Your task to perform on an android device: Go to Yahoo.com Image 0: 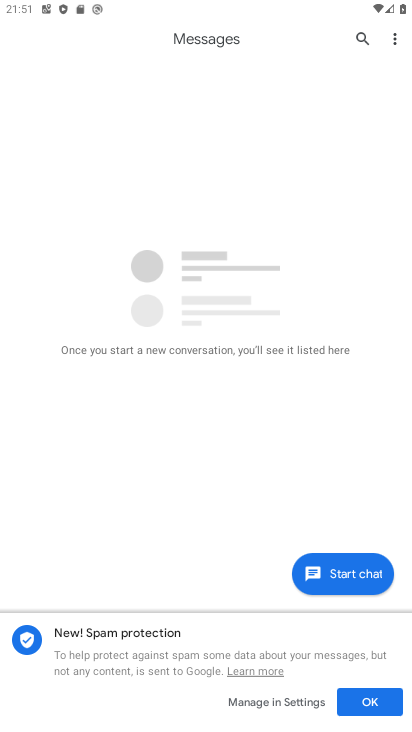
Step 0: press home button
Your task to perform on an android device: Go to Yahoo.com Image 1: 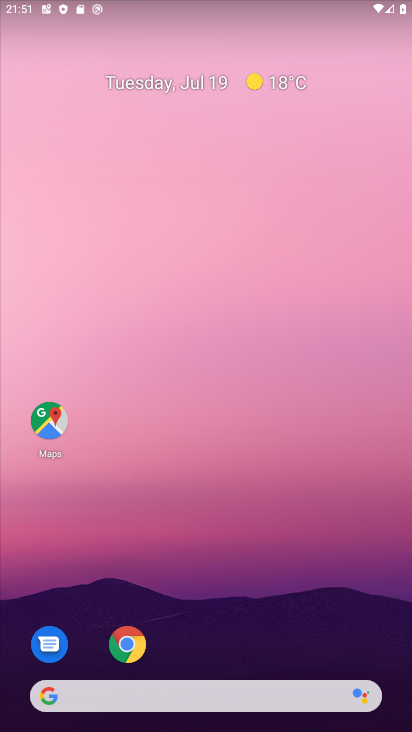
Step 1: drag from (291, 730) to (221, 186)
Your task to perform on an android device: Go to Yahoo.com Image 2: 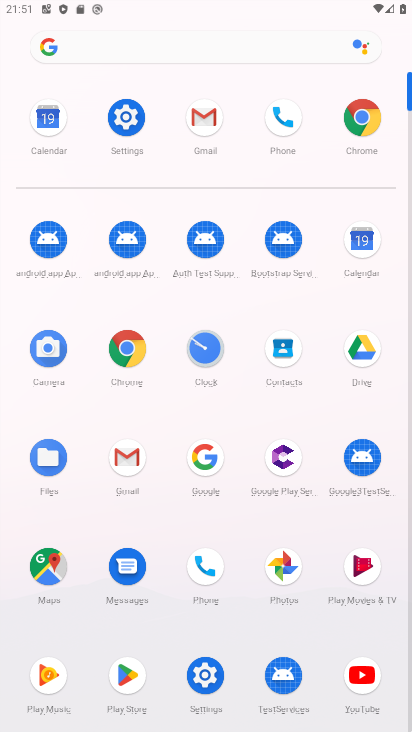
Step 2: click (126, 345)
Your task to perform on an android device: Go to Yahoo.com Image 3: 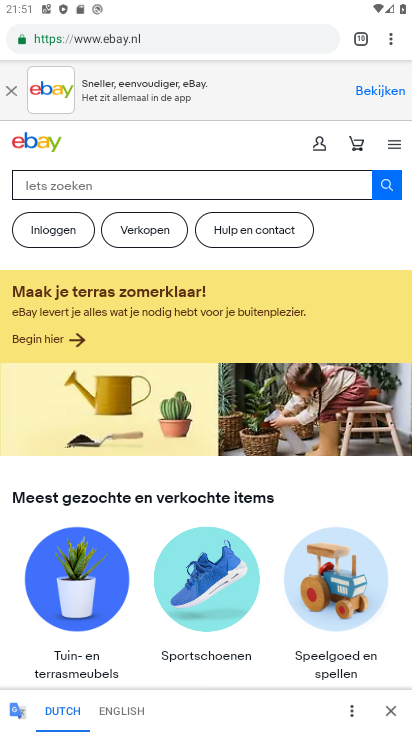
Step 3: click (391, 43)
Your task to perform on an android device: Go to Yahoo.com Image 4: 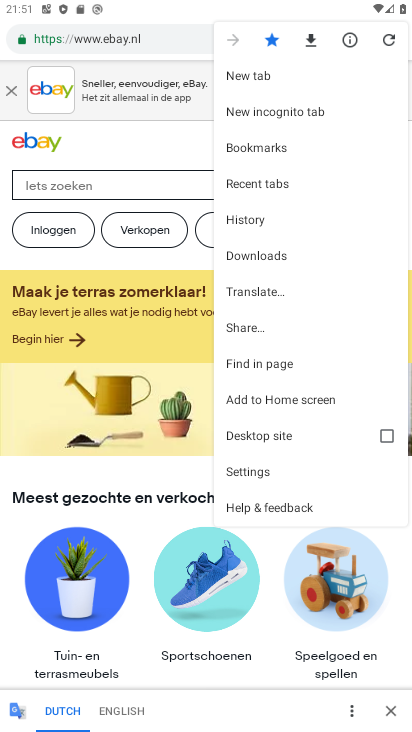
Step 4: click (259, 76)
Your task to perform on an android device: Go to Yahoo.com Image 5: 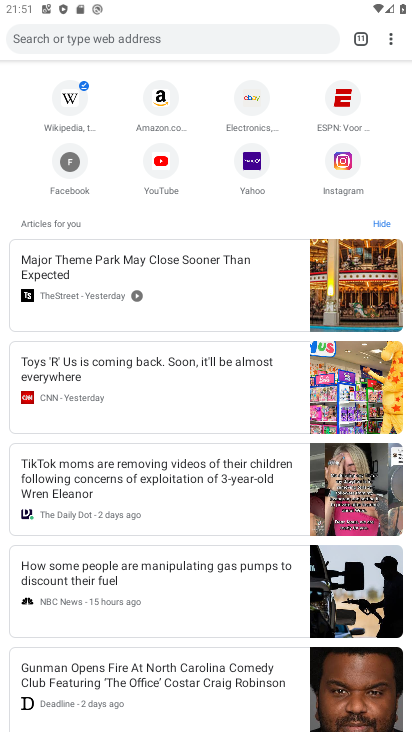
Step 5: click (253, 165)
Your task to perform on an android device: Go to Yahoo.com Image 6: 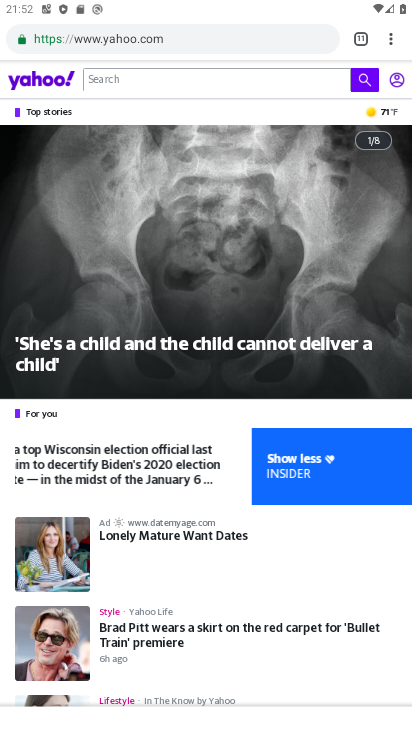
Step 6: task complete